Your task to perform on an android device: turn on priority inbox in the gmail app Image 0: 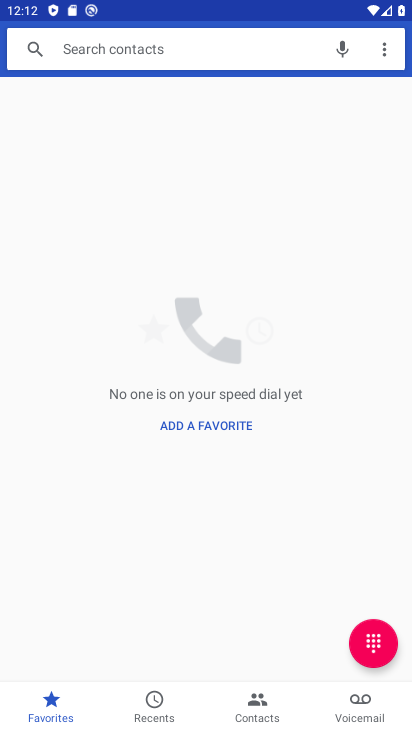
Step 0: press home button
Your task to perform on an android device: turn on priority inbox in the gmail app Image 1: 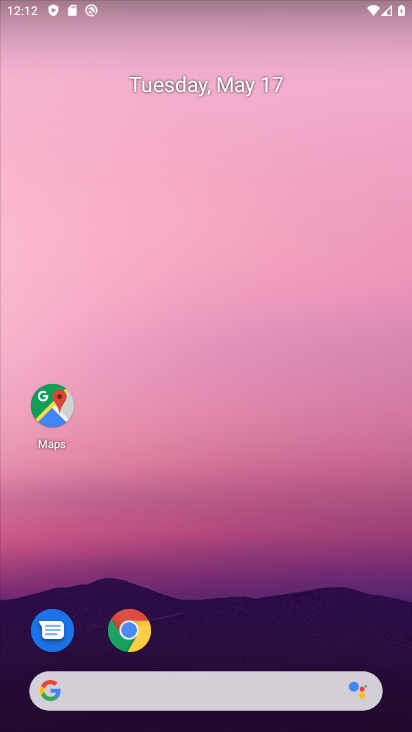
Step 1: drag from (167, 662) to (320, 151)
Your task to perform on an android device: turn on priority inbox in the gmail app Image 2: 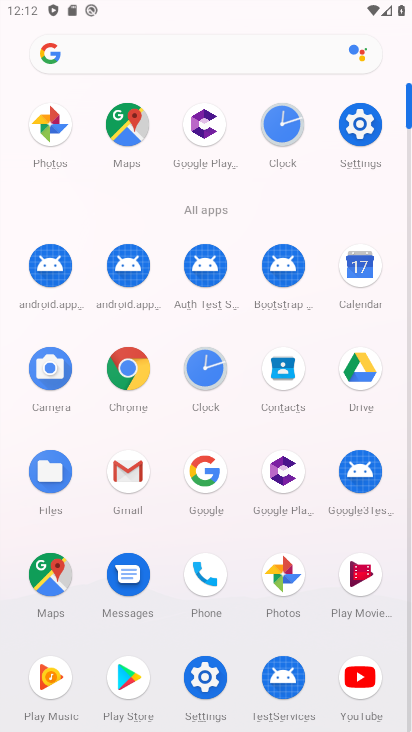
Step 2: click (132, 472)
Your task to perform on an android device: turn on priority inbox in the gmail app Image 3: 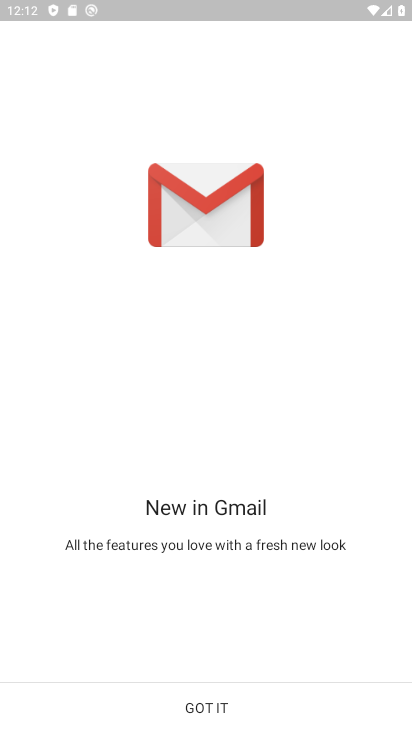
Step 3: click (220, 717)
Your task to perform on an android device: turn on priority inbox in the gmail app Image 4: 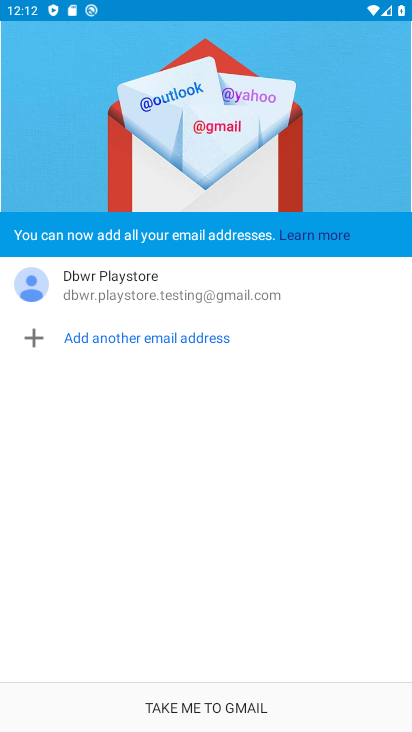
Step 4: click (260, 714)
Your task to perform on an android device: turn on priority inbox in the gmail app Image 5: 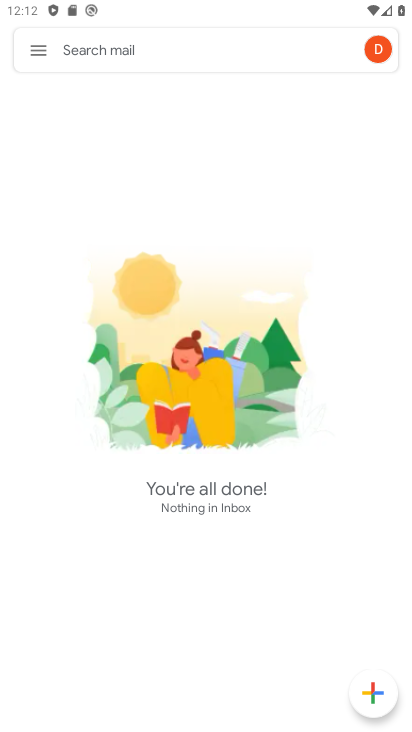
Step 5: click (47, 45)
Your task to perform on an android device: turn on priority inbox in the gmail app Image 6: 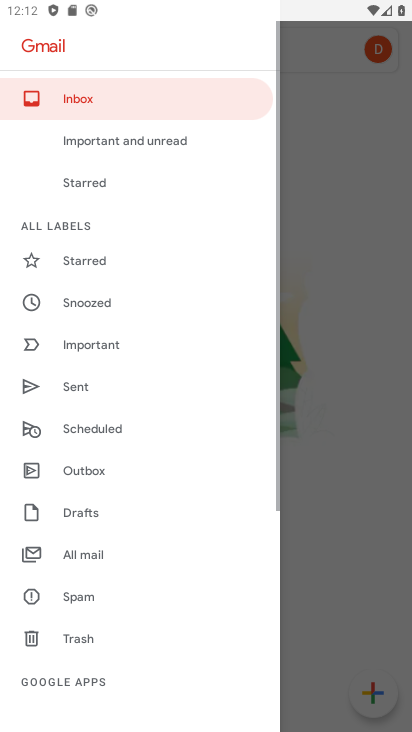
Step 6: drag from (133, 556) to (215, 217)
Your task to perform on an android device: turn on priority inbox in the gmail app Image 7: 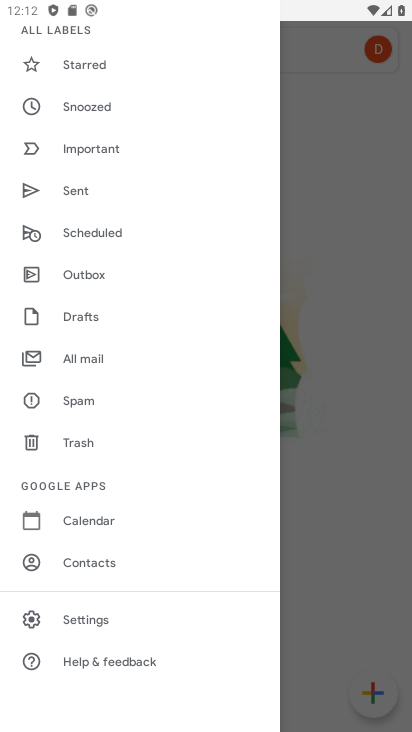
Step 7: click (119, 632)
Your task to perform on an android device: turn on priority inbox in the gmail app Image 8: 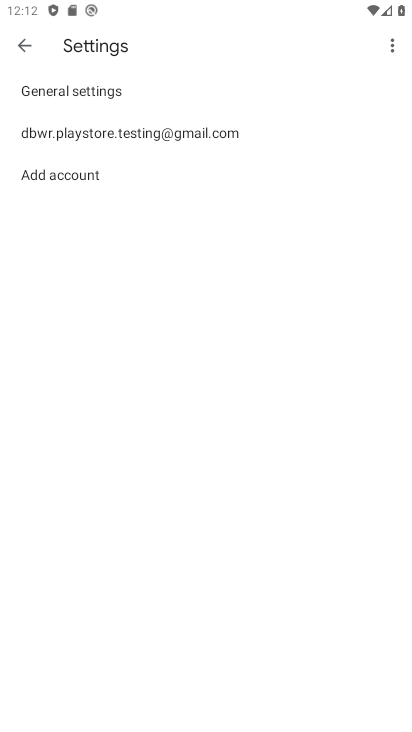
Step 8: click (217, 130)
Your task to perform on an android device: turn on priority inbox in the gmail app Image 9: 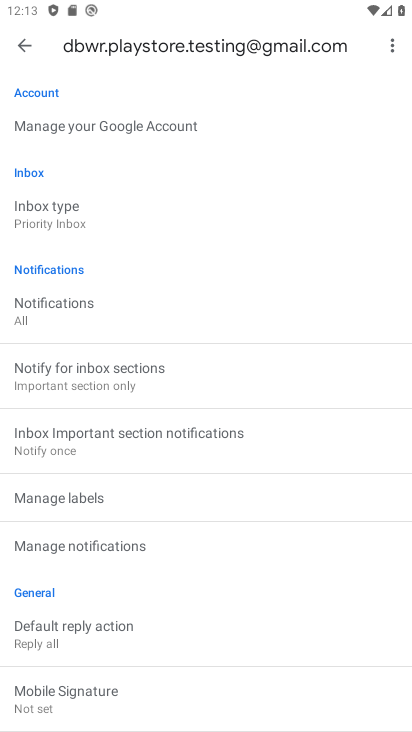
Step 9: task complete